Your task to perform on an android device: see sites visited before in the chrome app Image 0: 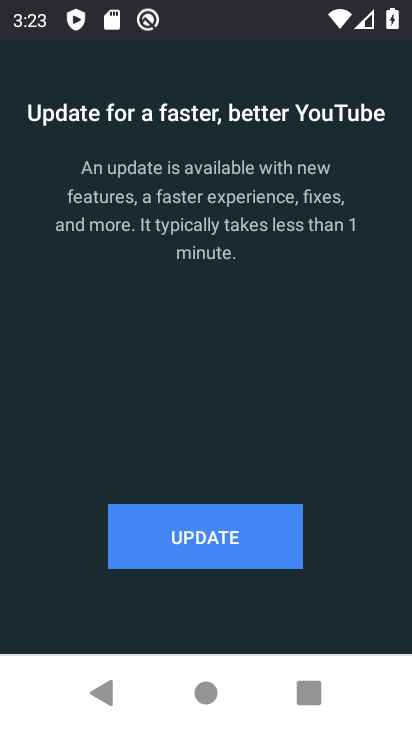
Step 0: press home button
Your task to perform on an android device: see sites visited before in the chrome app Image 1: 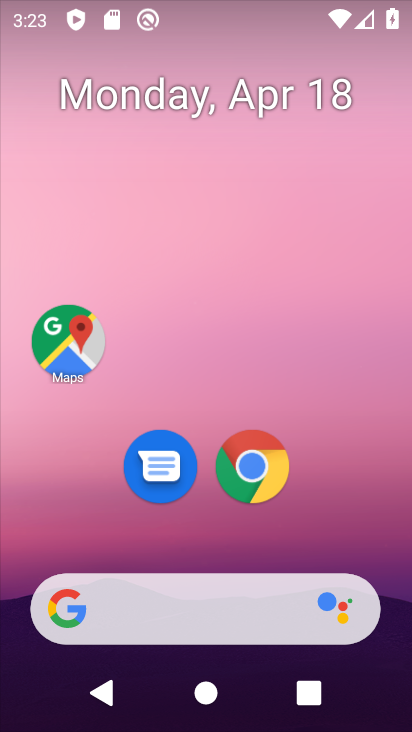
Step 1: click (269, 462)
Your task to perform on an android device: see sites visited before in the chrome app Image 2: 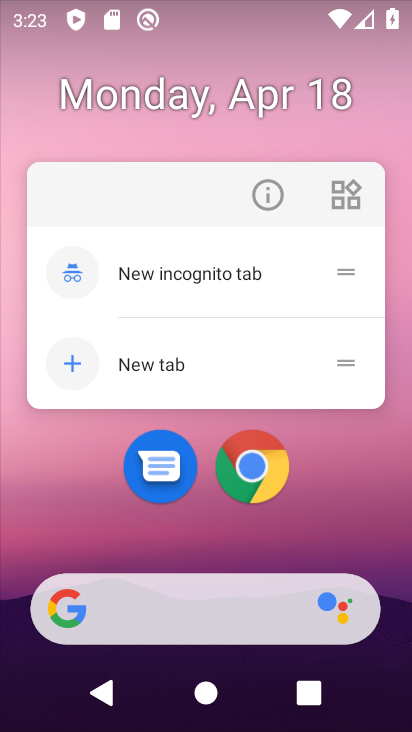
Step 2: click (269, 462)
Your task to perform on an android device: see sites visited before in the chrome app Image 3: 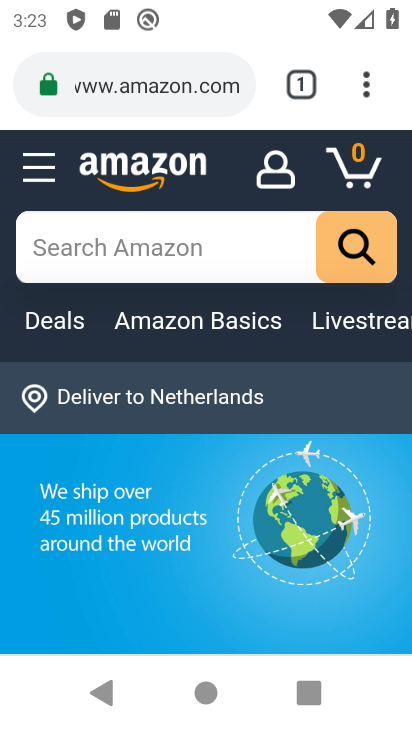
Step 3: click (372, 97)
Your task to perform on an android device: see sites visited before in the chrome app Image 4: 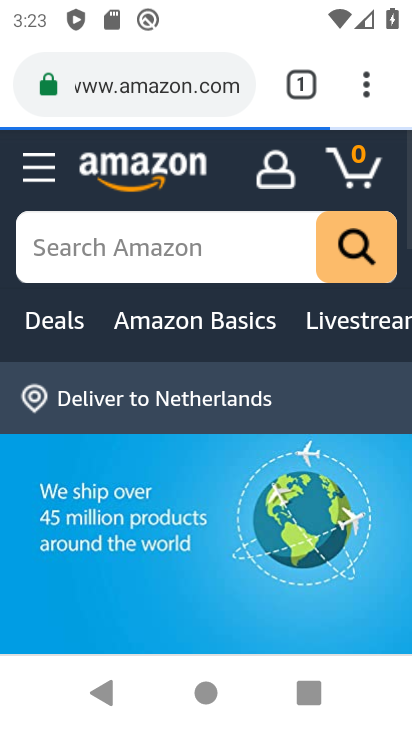
Step 4: click (372, 97)
Your task to perform on an android device: see sites visited before in the chrome app Image 5: 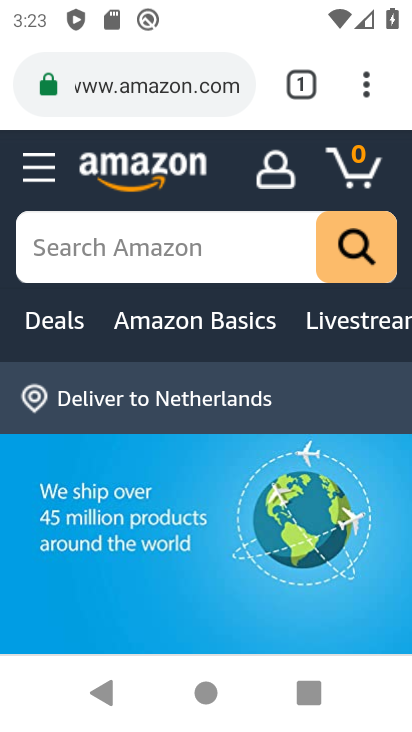
Step 5: click (369, 99)
Your task to perform on an android device: see sites visited before in the chrome app Image 6: 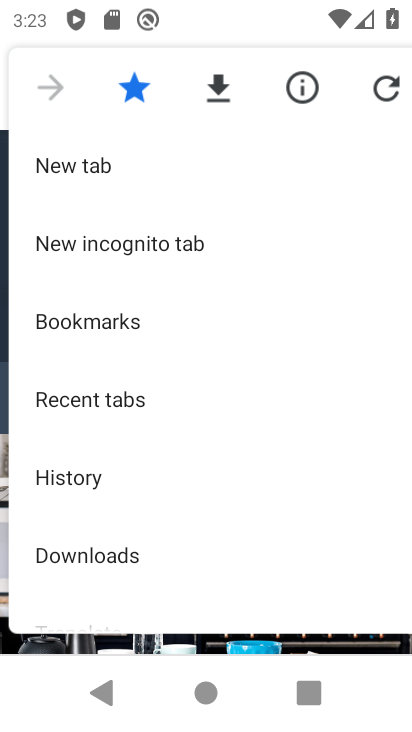
Step 6: drag from (134, 526) to (138, 423)
Your task to perform on an android device: see sites visited before in the chrome app Image 7: 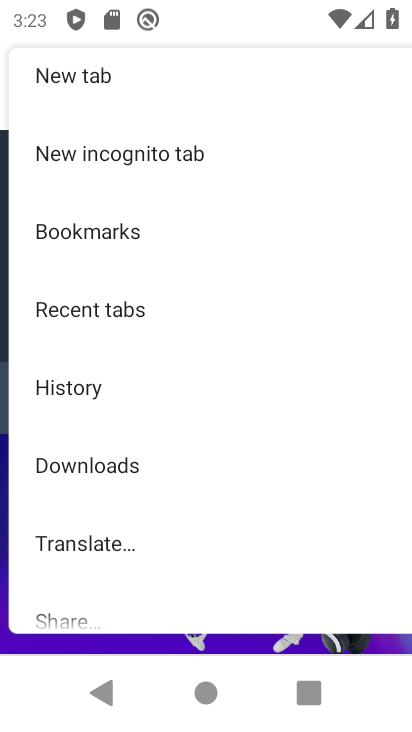
Step 7: click (158, 317)
Your task to perform on an android device: see sites visited before in the chrome app Image 8: 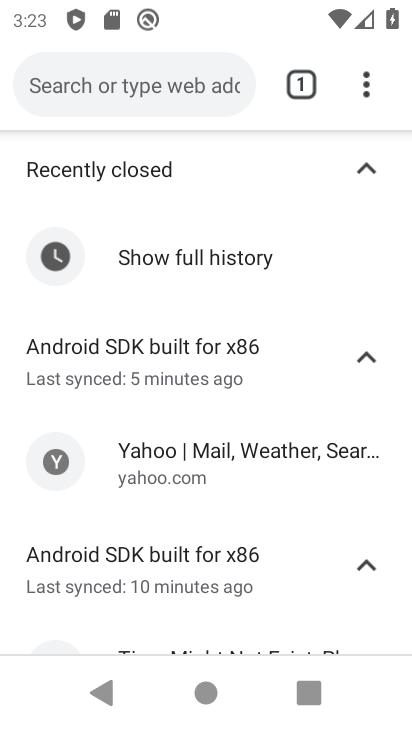
Step 8: task complete